Your task to perform on an android device: Open the calendar and show me this week's events Image 0: 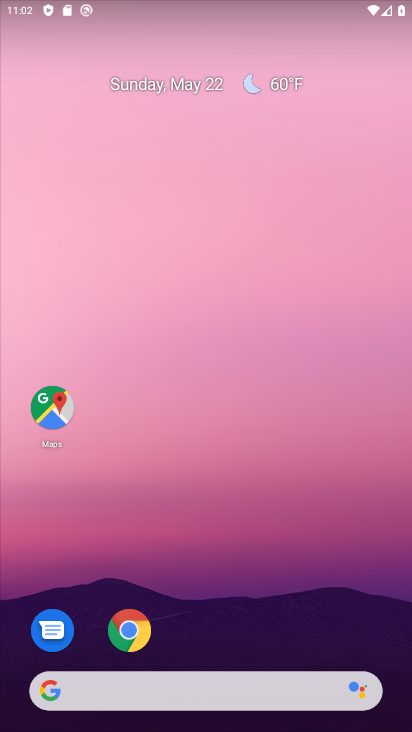
Step 0: drag from (281, 602) to (242, 44)
Your task to perform on an android device: Open the calendar and show me this week's events Image 1: 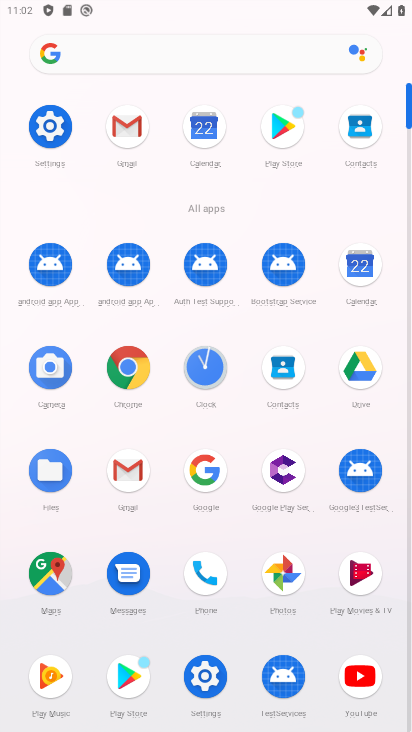
Step 1: click (202, 124)
Your task to perform on an android device: Open the calendar and show me this week's events Image 2: 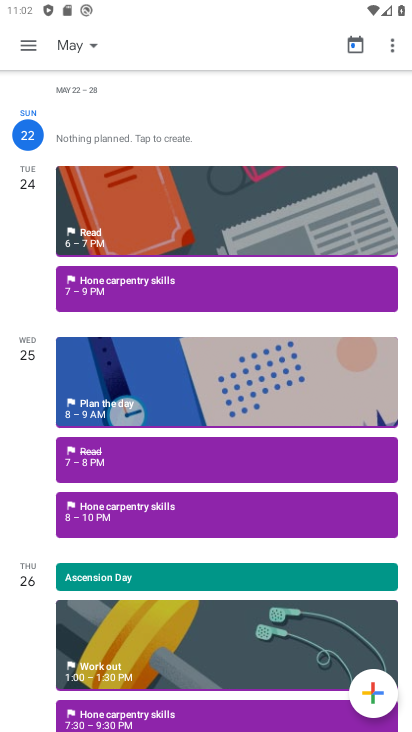
Step 2: task complete